Your task to perform on an android device: change the upload size in google photos Image 0: 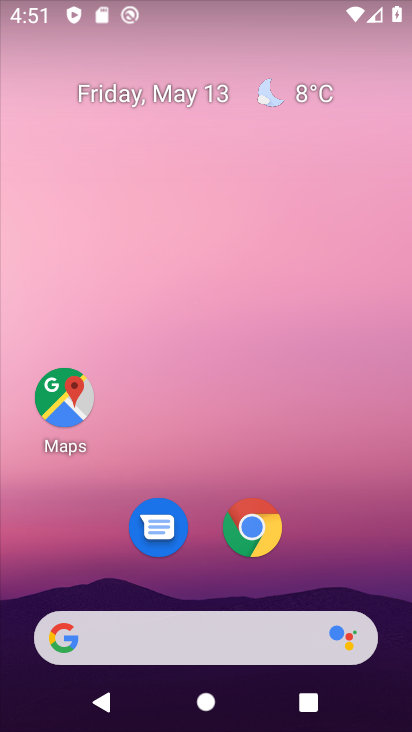
Step 0: drag from (197, 610) to (241, 223)
Your task to perform on an android device: change the upload size in google photos Image 1: 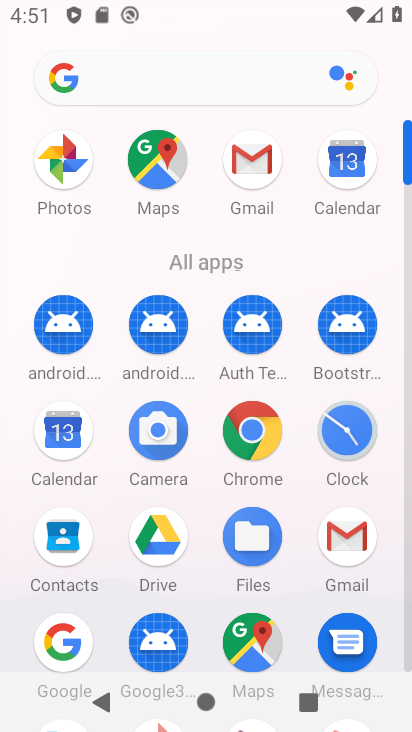
Step 1: drag from (123, 610) to (143, 242)
Your task to perform on an android device: change the upload size in google photos Image 2: 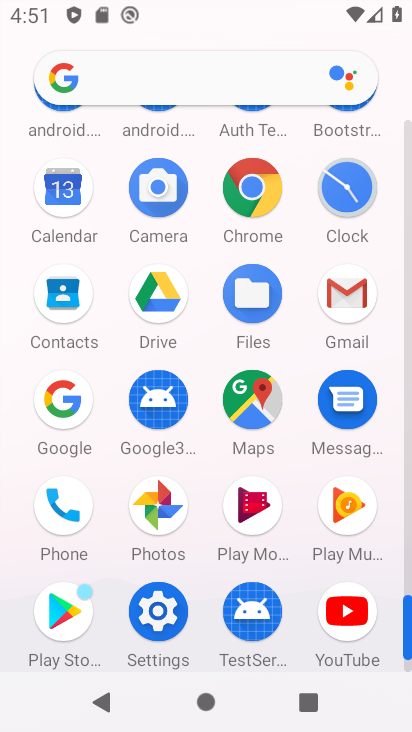
Step 2: click (169, 516)
Your task to perform on an android device: change the upload size in google photos Image 3: 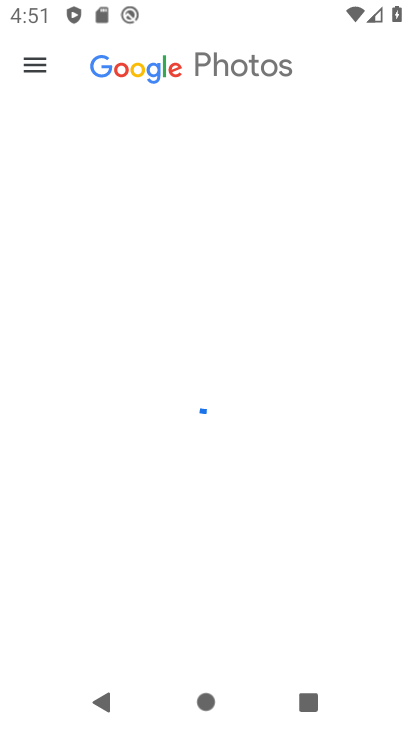
Step 3: click (37, 69)
Your task to perform on an android device: change the upload size in google photos Image 4: 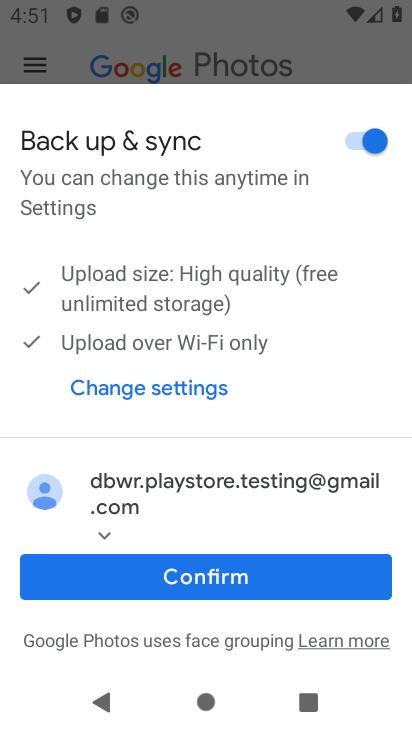
Step 4: click (204, 577)
Your task to perform on an android device: change the upload size in google photos Image 5: 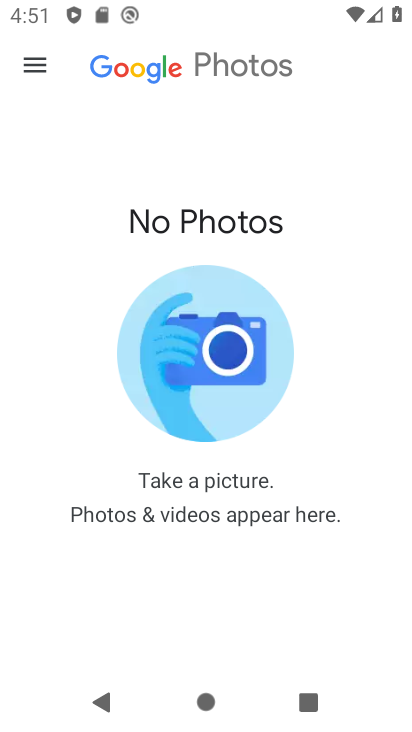
Step 5: click (44, 64)
Your task to perform on an android device: change the upload size in google photos Image 6: 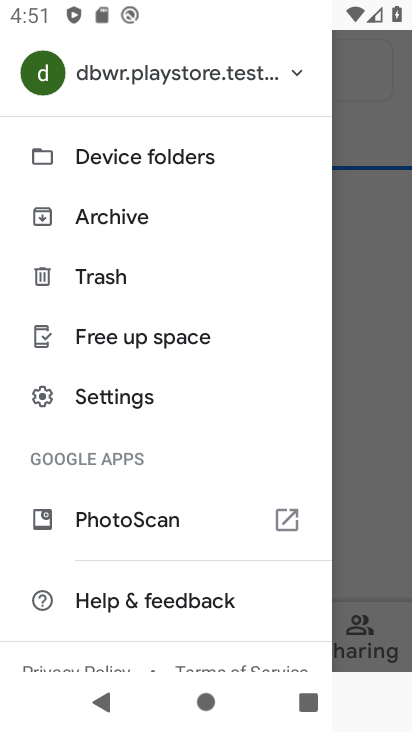
Step 6: click (140, 406)
Your task to perform on an android device: change the upload size in google photos Image 7: 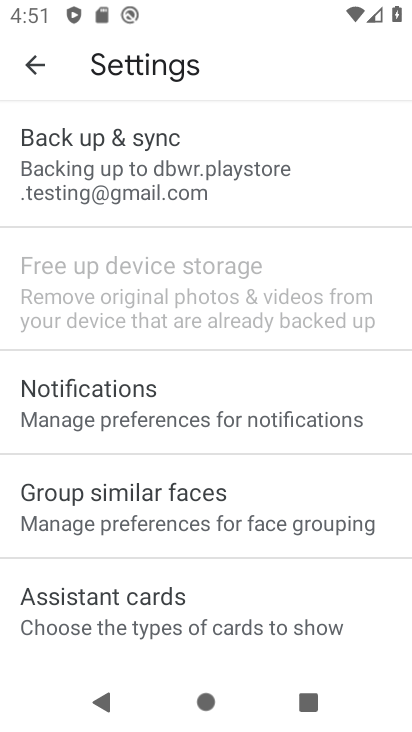
Step 7: click (90, 155)
Your task to perform on an android device: change the upload size in google photos Image 8: 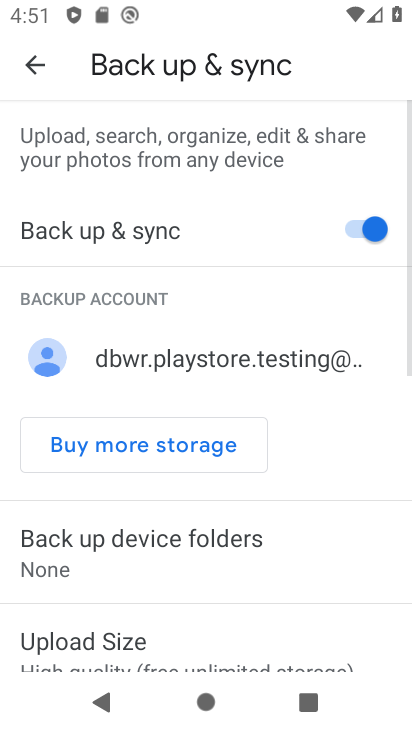
Step 8: click (111, 645)
Your task to perform on an android device: change the upload size in google photos Image 9: 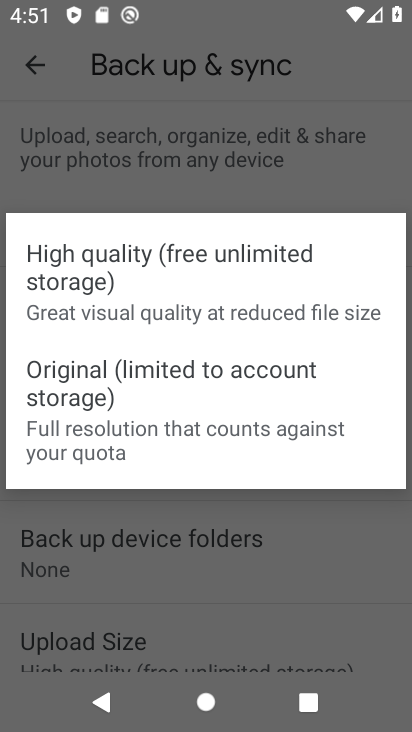
Step 9: click (43, 378)
Your task to perform on an android device: change the upload size in google photos Image 10: 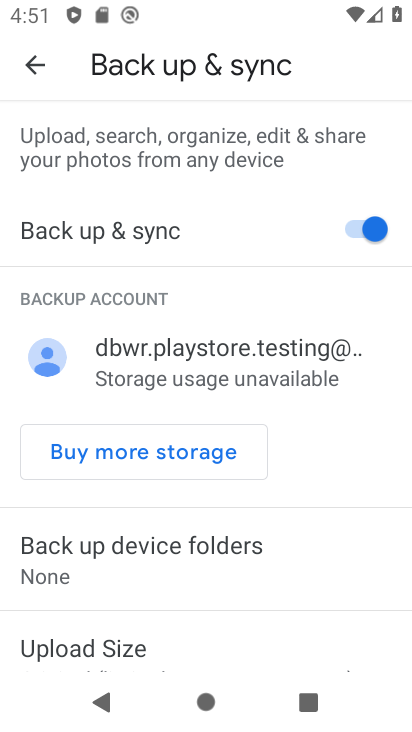
Step 10: task complete